Your task to perform on an android device: Search for Mexican restaurants on Maps Image 0: 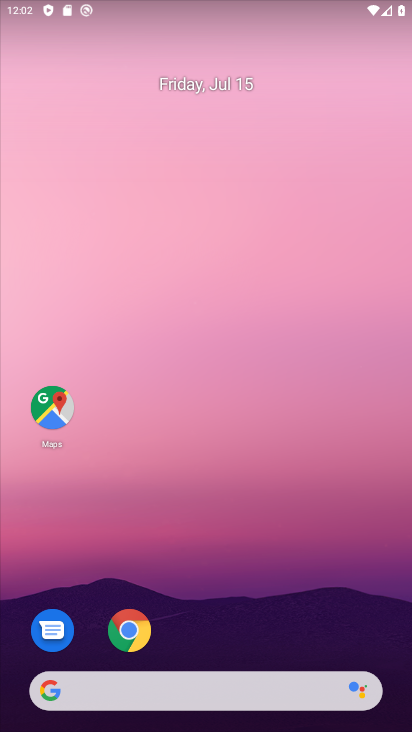
Step 0: drag from (268, 650) to (328, 91)
Your task to perform on an android device: Search for Mexican restaurants on Maps Image 1: 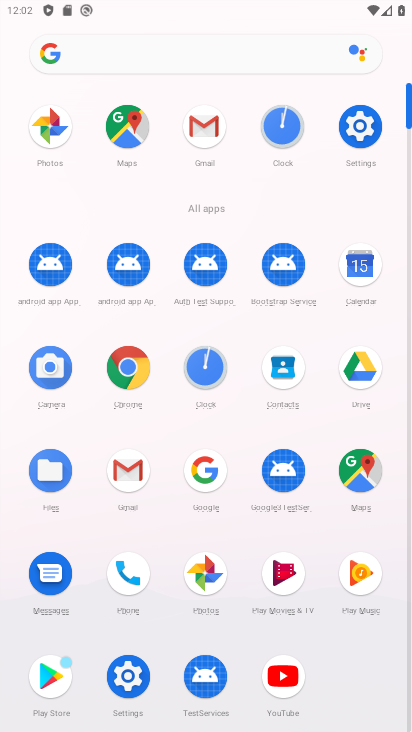
Step 1: click (361, 470)
Your task to perform on an android device: Search for Mexican restaurants on Maps Image 2: 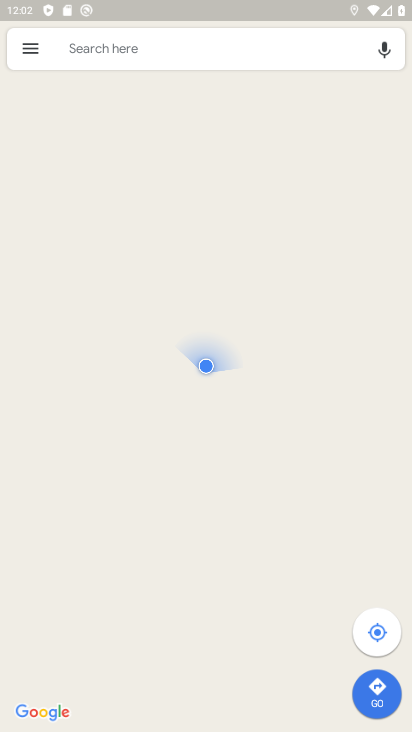
Step 2: click (156, 48)
Your task to perform on an android device: Search for Mexican restaurants on Maps Image 3: 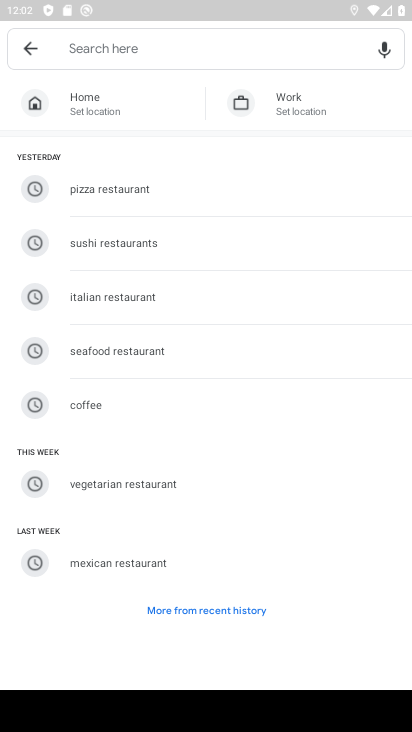
Step 3: type "Mexican restaurants"
Your task to perform on an android device: Search for Mexican restaurants on Maps Image 4: 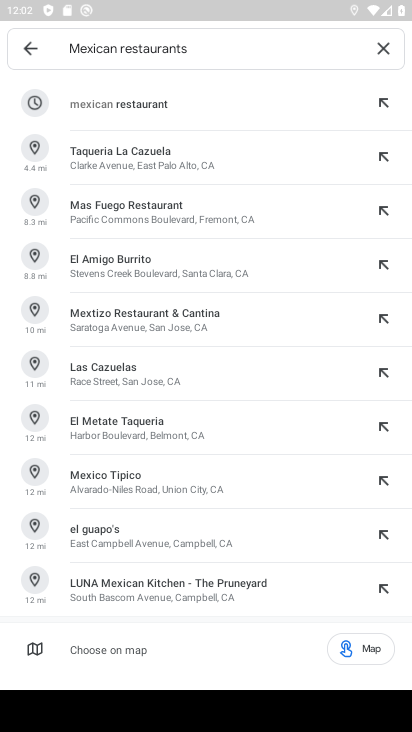
Step 4: click (227, 118)
Your task to perform on an android device: Search for Mexican restaurants on Maps Image 5: 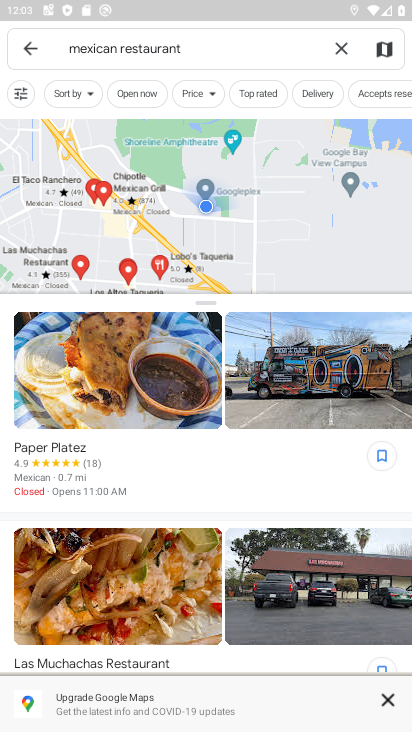
Step 5: task complete